Your task to perform on an android device: turn off wifi Image 0: 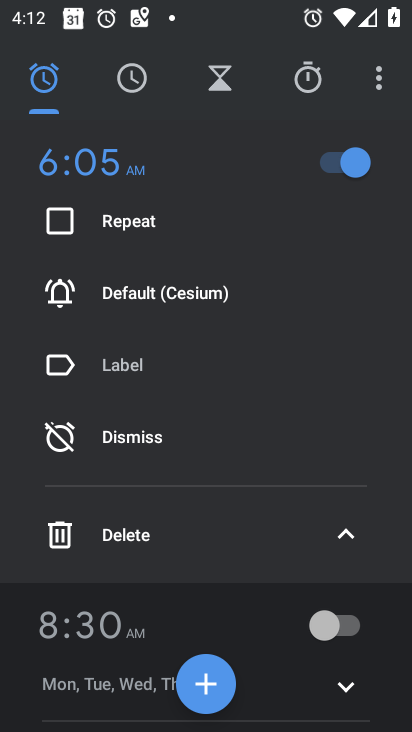
Step 0: press home button
Your task to perform on an android device: turn off wifi Image 1: 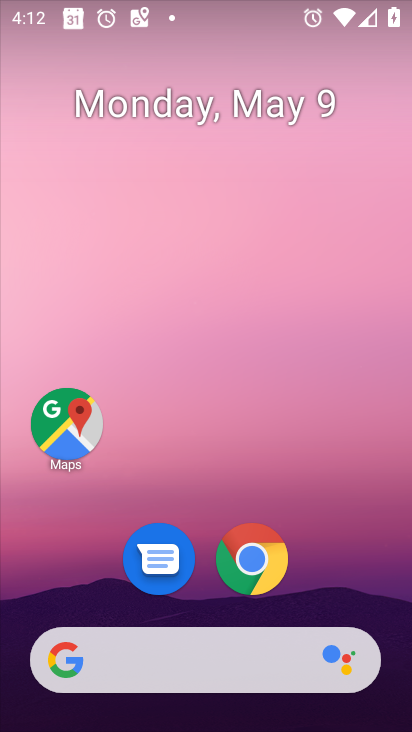
Step 1: drag from (198, 728) to (194, 125)
Your task to perform on an android device: turn off wifi Image 2: 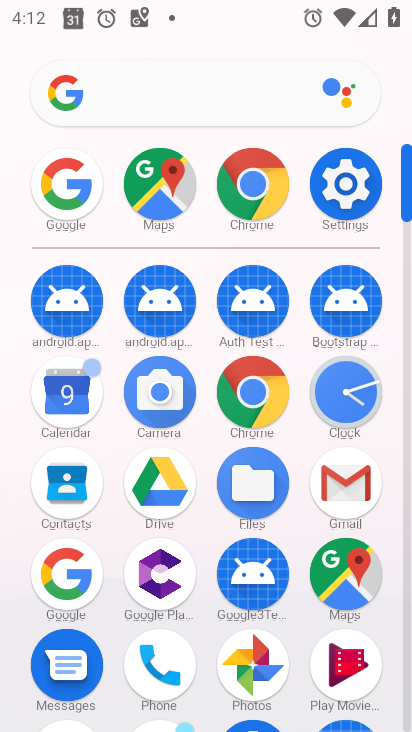
Step 2: click (345, 199)
Your task to perform on an android device: turn off wifi Image 3: 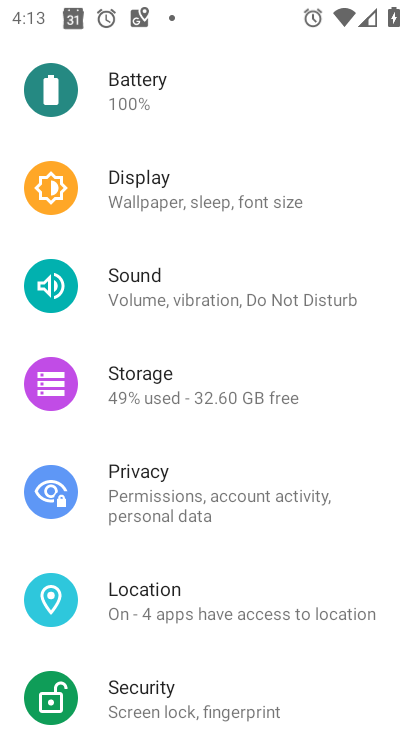
Step 3: drag from (235, 141) to (250, 585)
Your task to perform on an android device: turn off wifi Image 4: 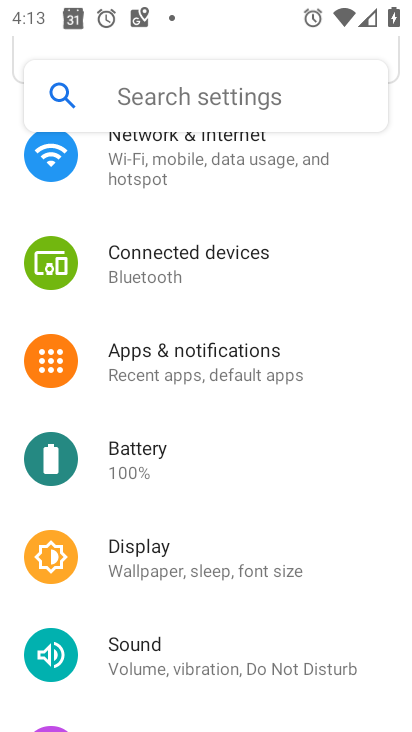
Step 4: drag from (190, 345) to (214, 631)
Your task to perform on an android device: turn off wifi Image 5: 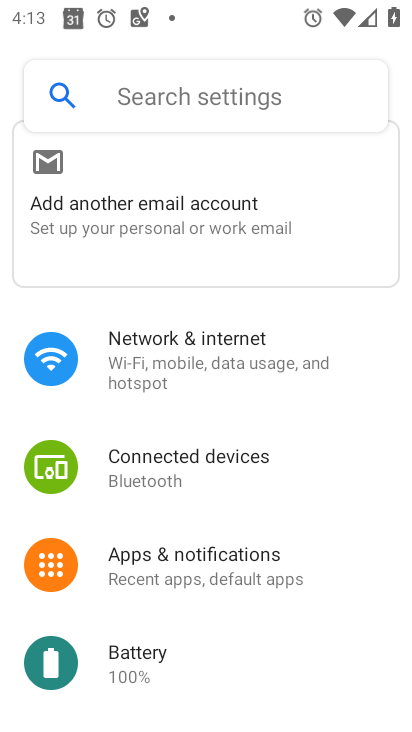
Step 5: click (170, 349)
Your task to perform on an android device: turn off wifi Image 6: 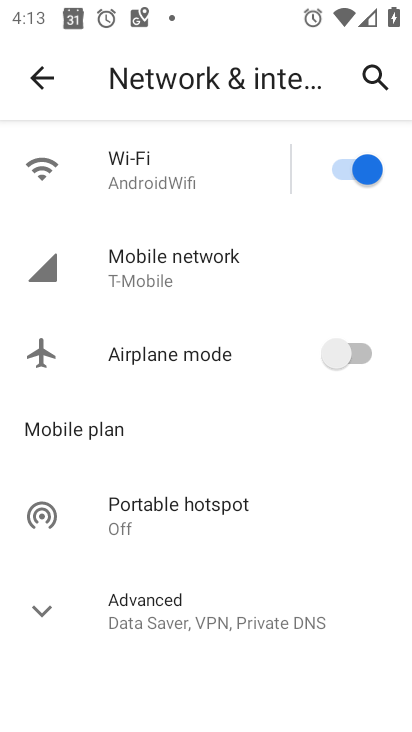
Step 6: click (342, 172)
Your task to perform on an android device: turn off wifi Image 7: 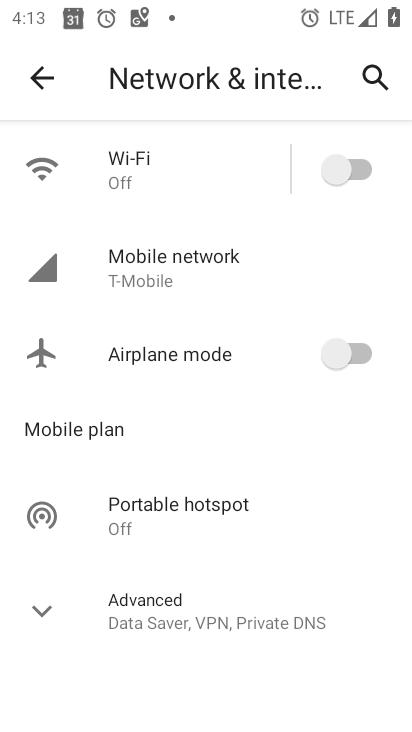
Step 7: task complete